Your task to perform on an android device: toggle translation in the chrome app Image 0: 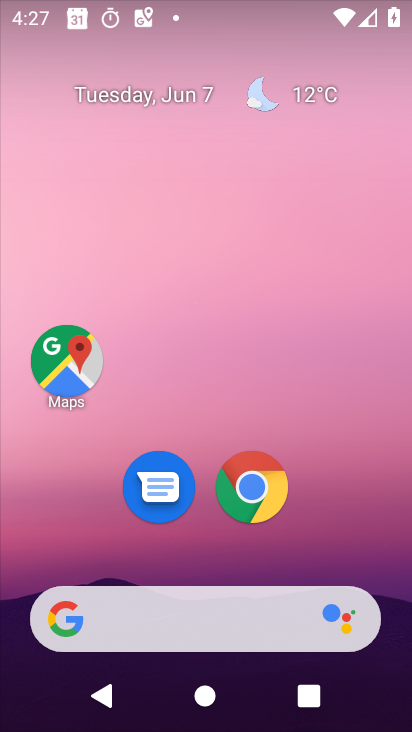
Step 0: click (251, 482)
Your task to perform on an android device: toggle translation in the chrome app Image 1: 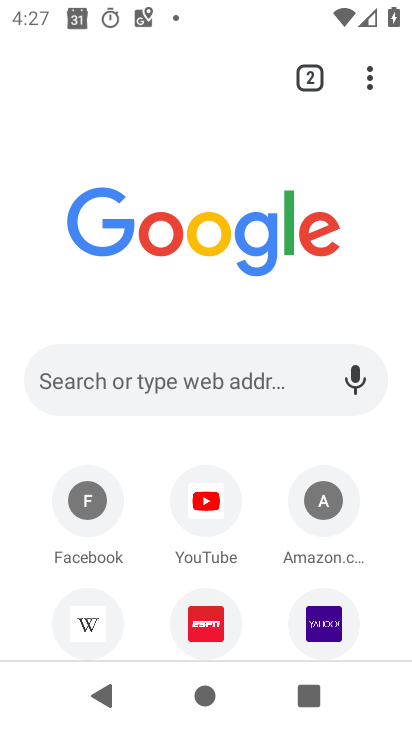
Step 1: drag from (370, 74) to (138, 552)
Your task to perform on an android device: toggle translation in the chrome app Image 2: 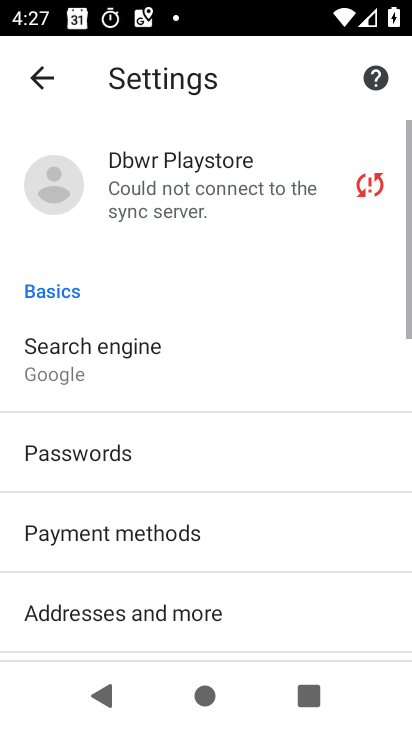
Step 2: drag from (123, 564) to (204, 3)
Your task to perform on an android device: toggle translation in the chrome app Image 3: 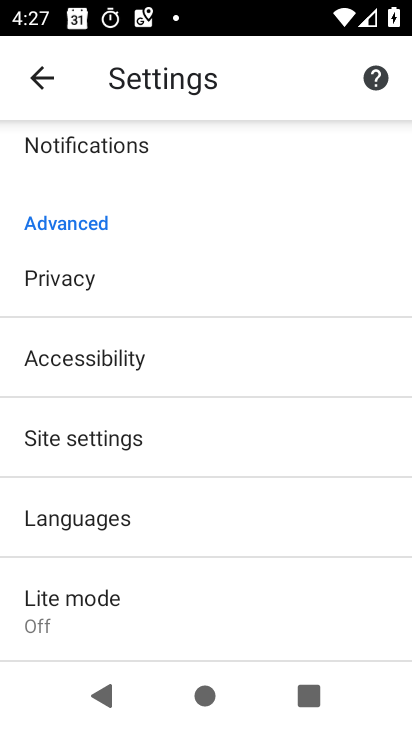
Step 3: click (48, 532)
Your task to perform on an android device: toggle translation in the chrome app Image 4: 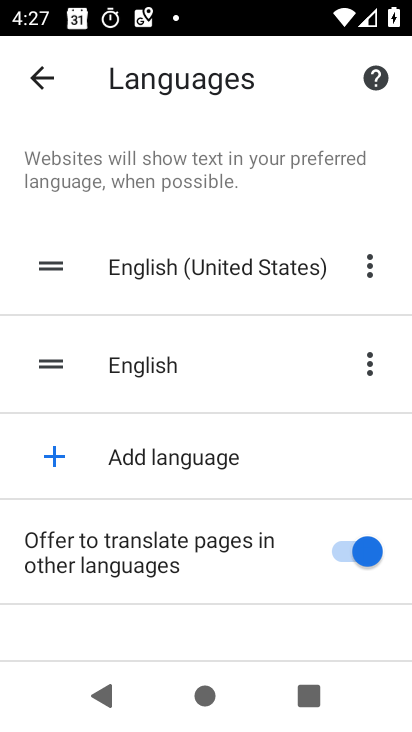
Step 4: click (350, 553)
Your task to perform on an android device: toggle translation in the chrome app Image 5: 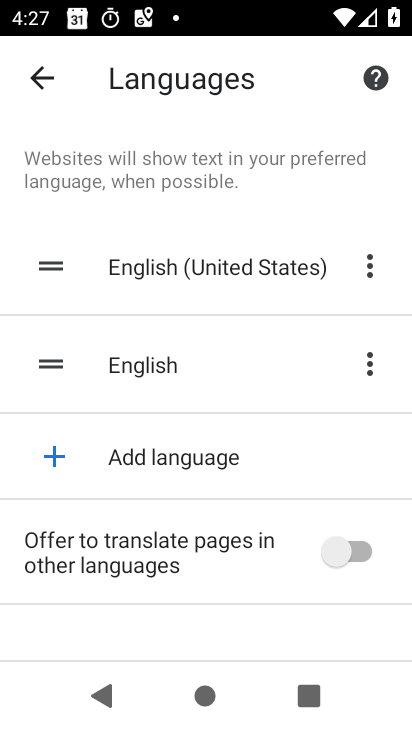
Step 5: task complete